Your task to perform on an android device: all mails in gmail Image 0: 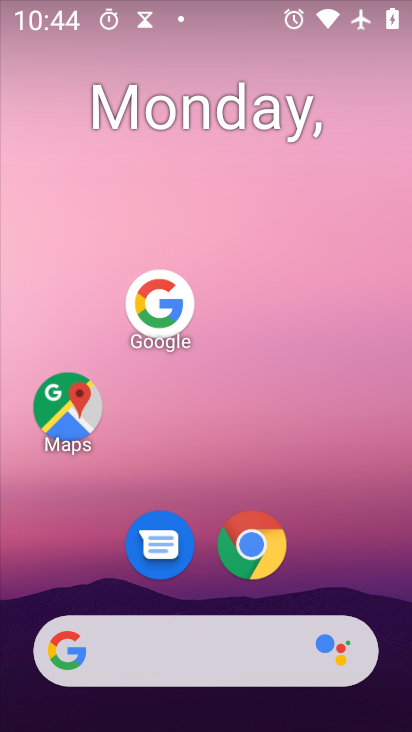
Step 0: press home button
Your task to perform on an android device: all mails in gmail Image 1: 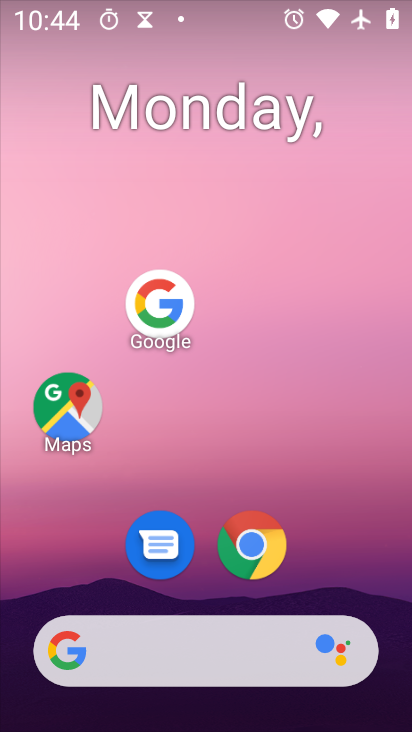
Step 1: drag from (159, 667) to (313, 148)
Your task to perform on an android device: all mails in gmail Image 2: 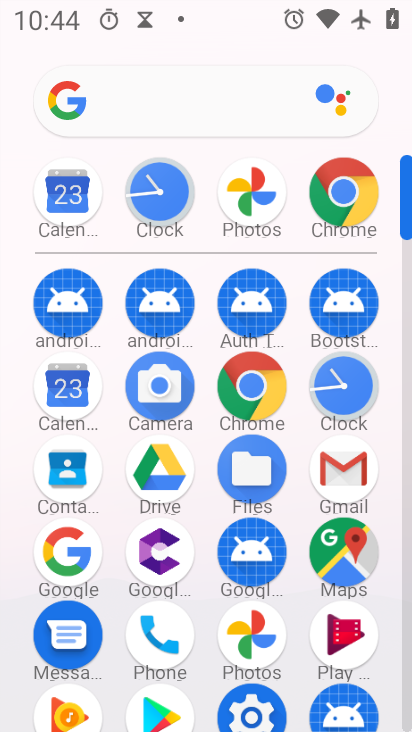
Step 2: click (348, 469)
Your task to perform on an android device: all mails in gmail Image 3: 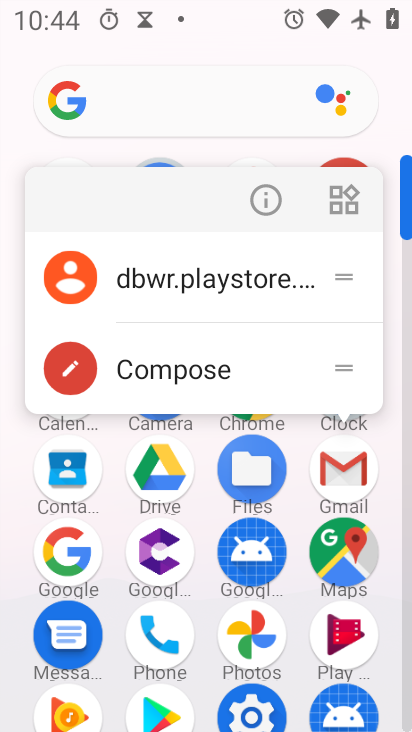
Step 3: click (346, 477)
Your task to perform on an android device: all mails in gmail Image 4: 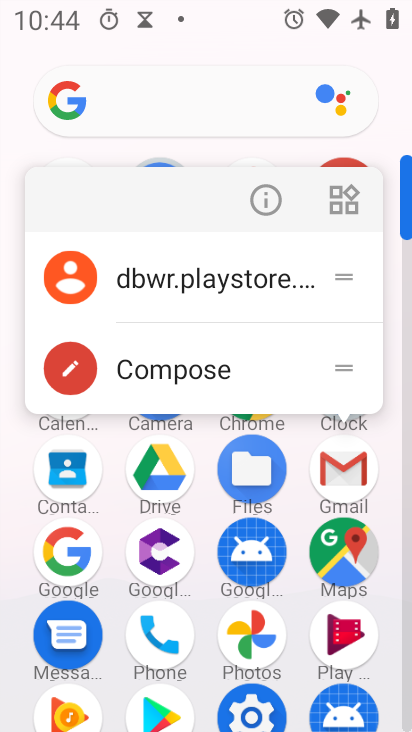
Step 4: click (336, 482)
Your task to perform on an android device: all mails in gmail Image 5: 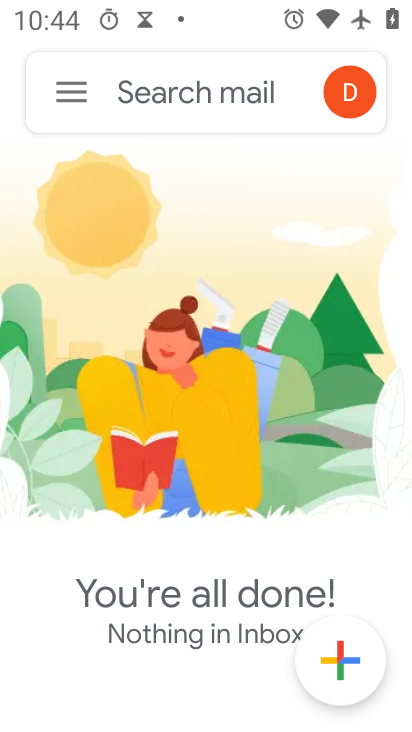
Step 5: click (77, 89)
Your task to perform on an android device: all mails in gmail Image 6: 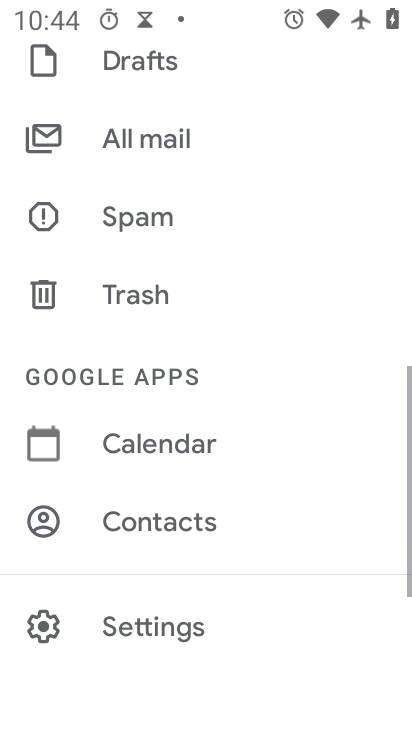
Step 6: click (77, 90)
Your task to perform on an android device: all mails in gmail Image 7: 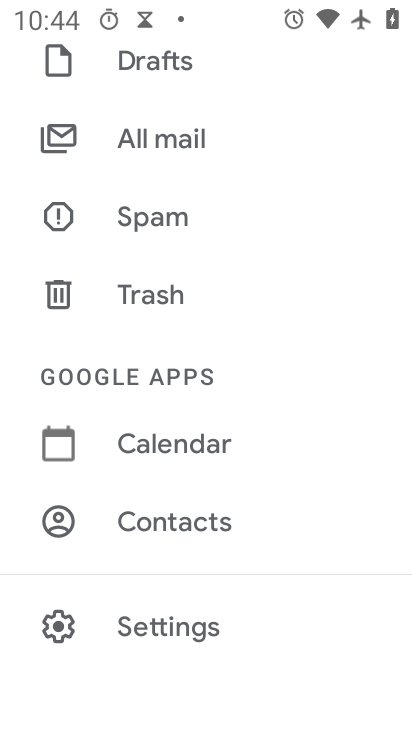
Step 7: click (172, 136)
Your task to perform on an android device: all mails in gmail Image 8: 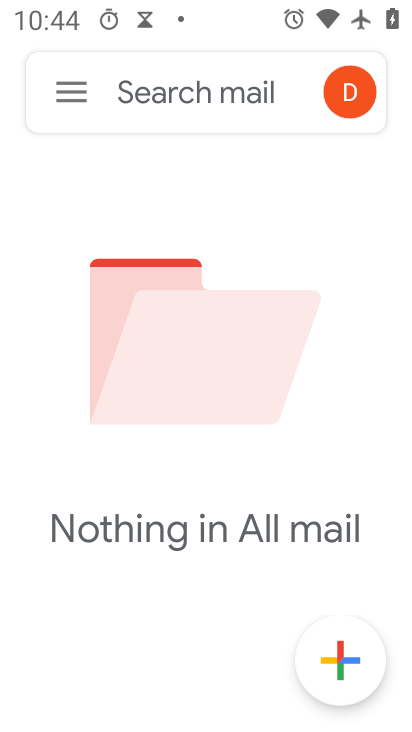
Step 8: task complete